Your task to perform on an android device: Open settings on Google Maps Image 0: 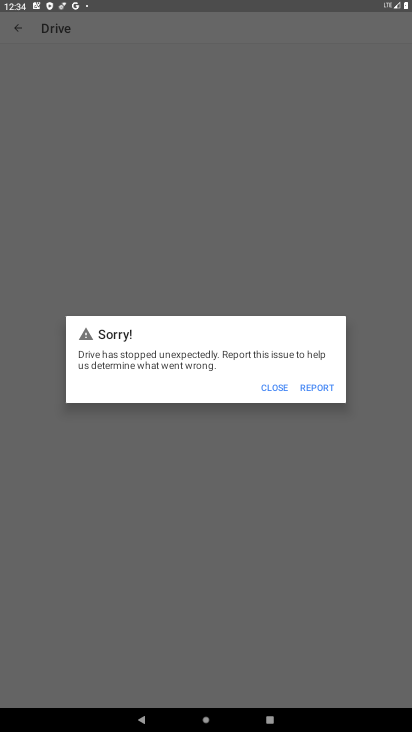
Step 0: press home button
Your task to perform on an android device: Open settings on Google Maps Image 1: 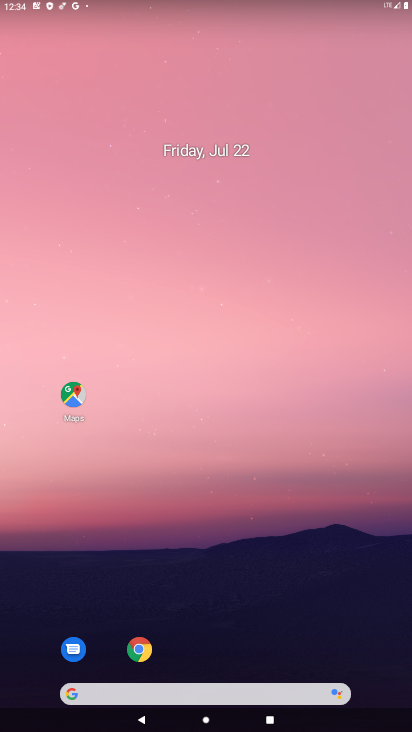
Step 1: drag from (228, 655) to (184, 84)
Your task to perform on an android device: Open settings on Google Maps Image 2: 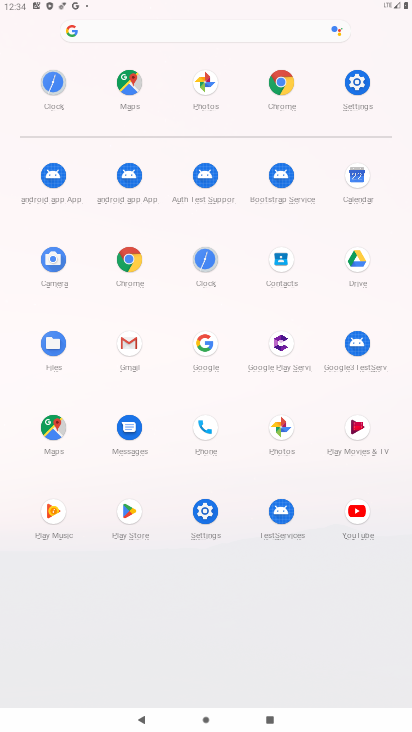
Step 2: click (53, 430)
Your task to perform on an android device: Open settings on Google Maps Image 3: 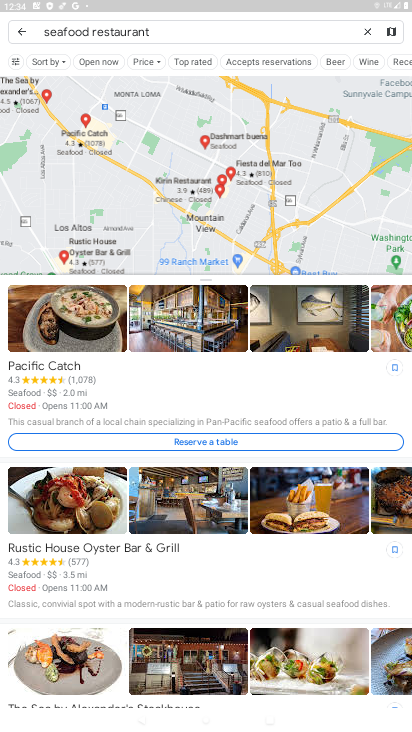
Step 3: click (20, 29)
Your task to perform on an android device: Open settings on Google Maps Image 4: 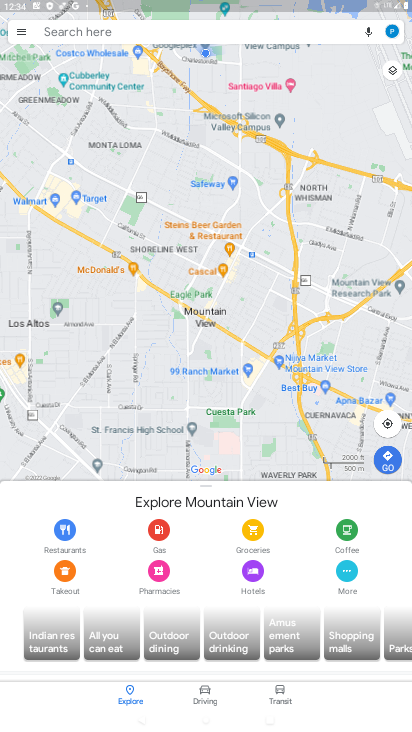
Step 4: click (20, 29)
Your task to perform on an android device: Open settings on Google Maps Image 5: 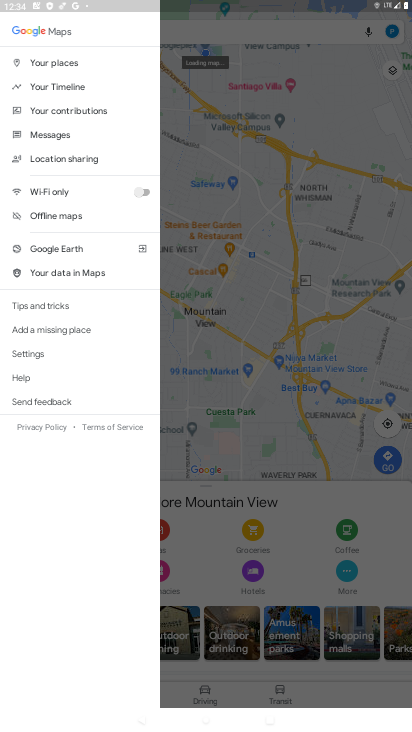
Step 5: click (23, 348)
Your task to perform on an android device: Open settings on Google Maps Image 6: 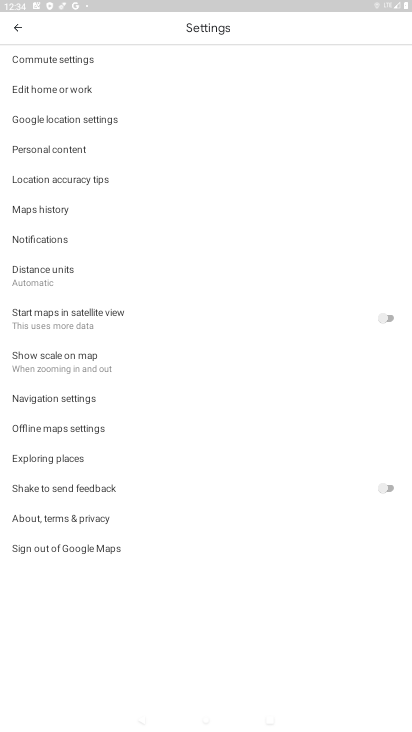
Step 6: task complete